Your task to perform on an android device: Search for vegetarian restaurants on Maps Image 0: 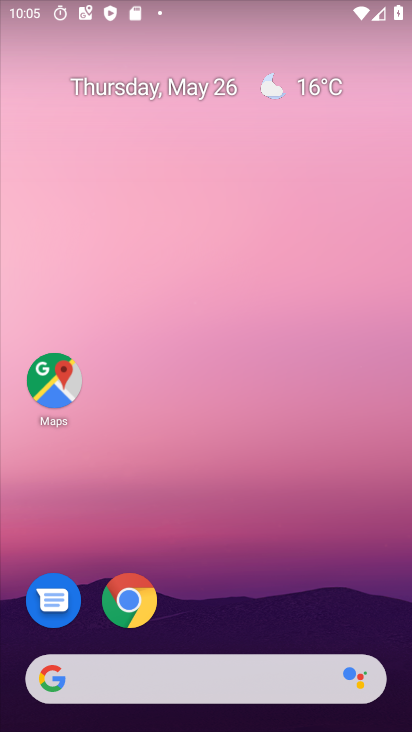
Step 0: click (29, 380)
Your task to perform on an android device: Search for vegetarian restaurants on Maps Image 1: 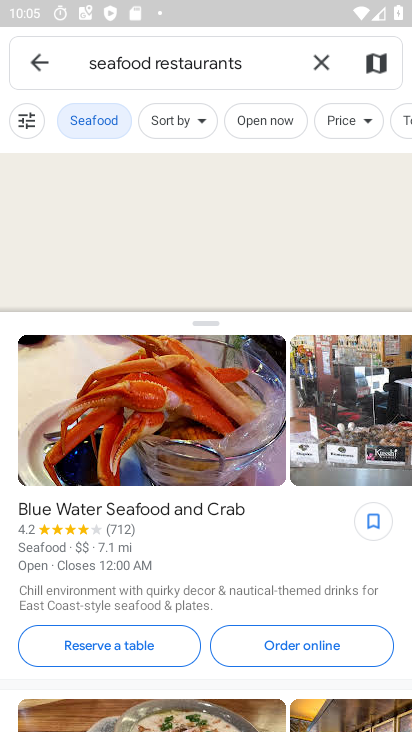
Step 1: click (316, 66)
Your task to perform on an android device: Search for vegetarian restaurants on Maps Image 2: 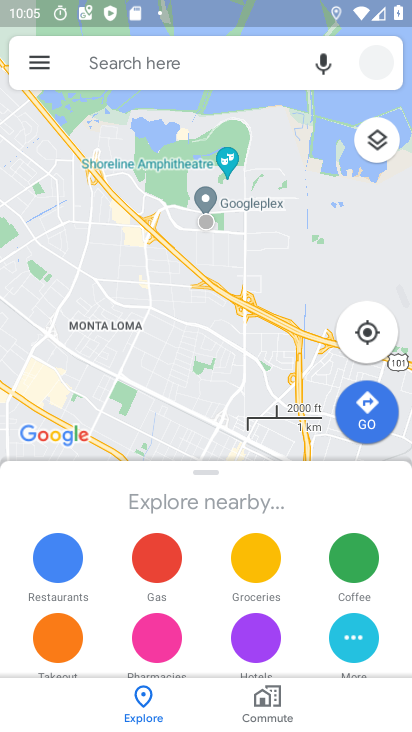
Step 2: click (229, 67)
Your task to perform on an android device: Search for vegetarian restaurants on Maps Image 3: 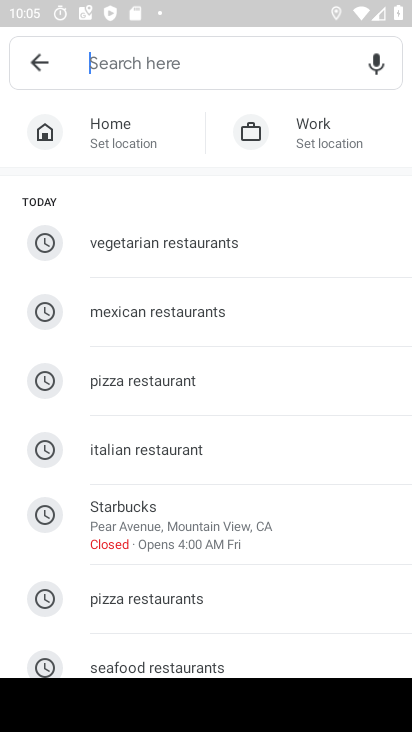
Step 3: click (196, 217)
Your task to perform on an android device: Search for vegetarian restaurants on Maps Image 4: 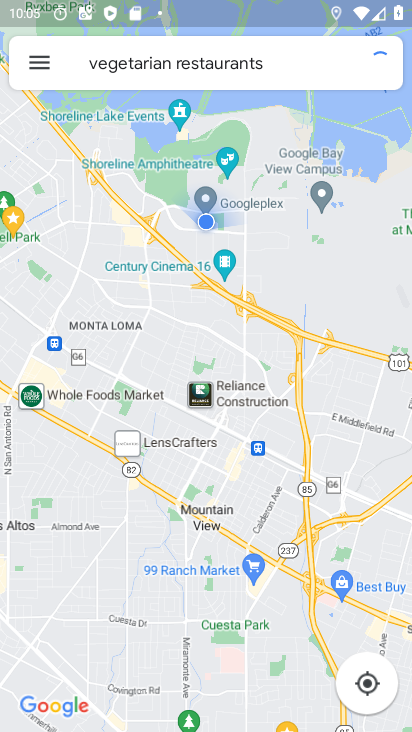
Step 4: task complete